Your task to perform on an android device: Search for seafood restaurants on Google Maps Image 0: 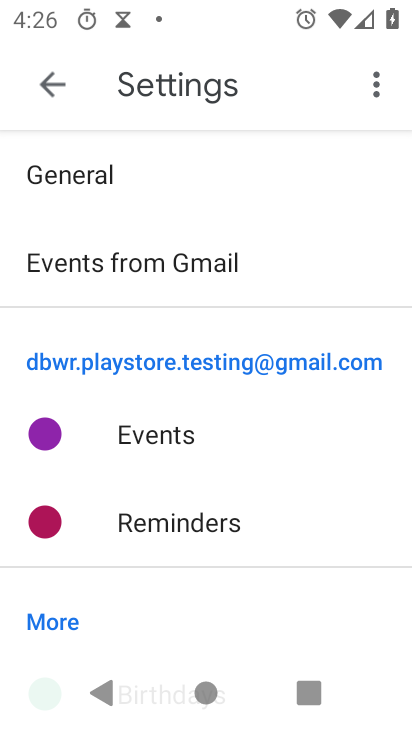
Step 0: press home button
Your task to perform on an android device: Search for seafood restaurants on Google Maps Image 1: 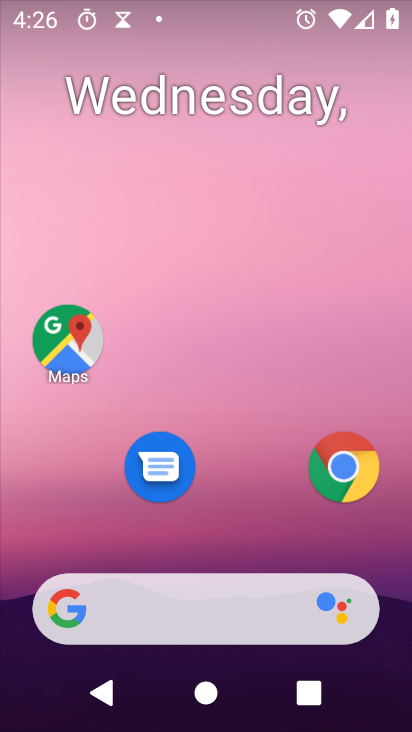
Step 1: click (84, 356)
Your task to perform on an android device: Search for seafood restaurants on Google Maps Image 2: 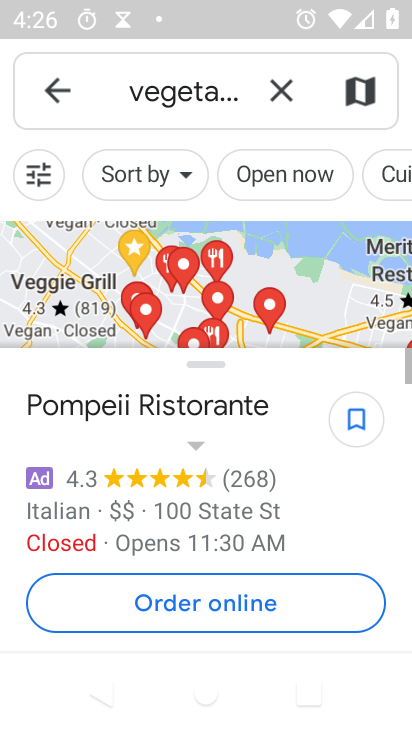
Step 2: click (286, 101)
Your task to perform on an android device: Search for seafood restaurants on Google Maps Image 3: 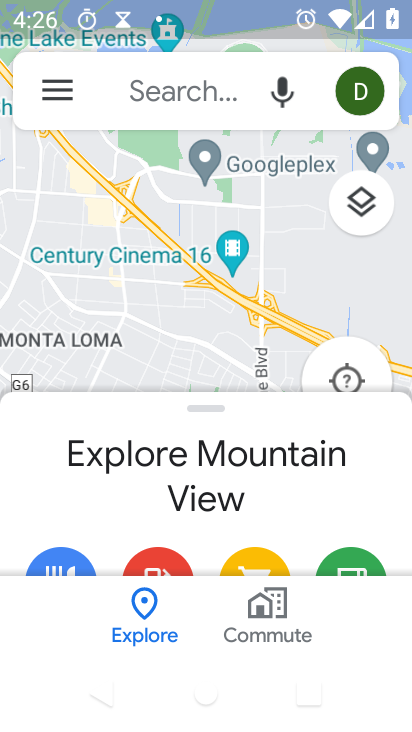
Step 3: click (193, 87)
Your task to perform on an android device: Search for seafood restaurants on Google Maps Image 4: 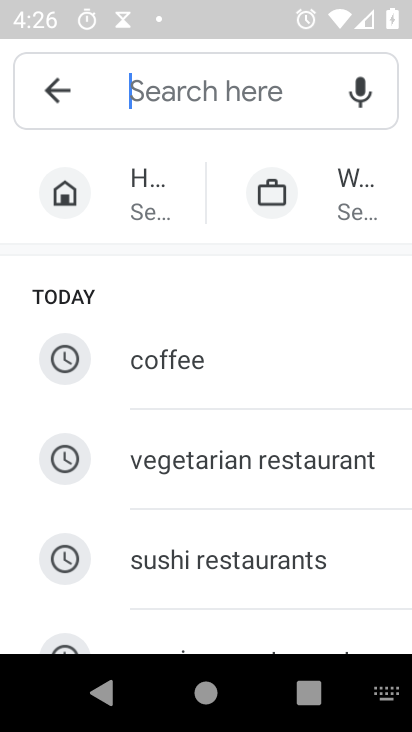
Step 4: type "seafood restaurants"
Your task to perform on an android device: Search for seafood restaurants on Google Maps Image 5: 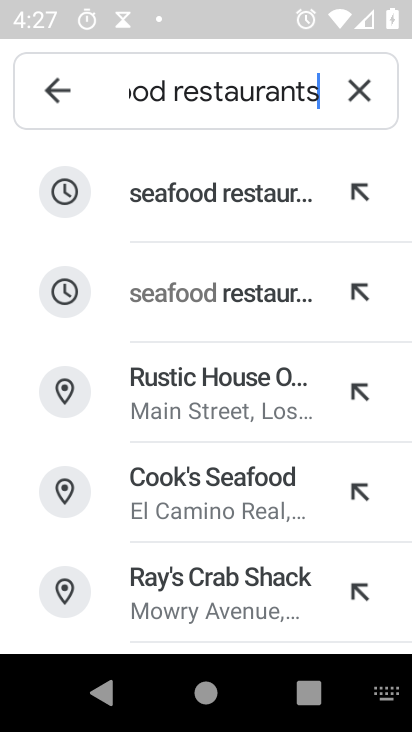
Step 5: click (233, 184)
Your task to perform on an android device: Search for seafood restaurants on Google Maps Image 6: 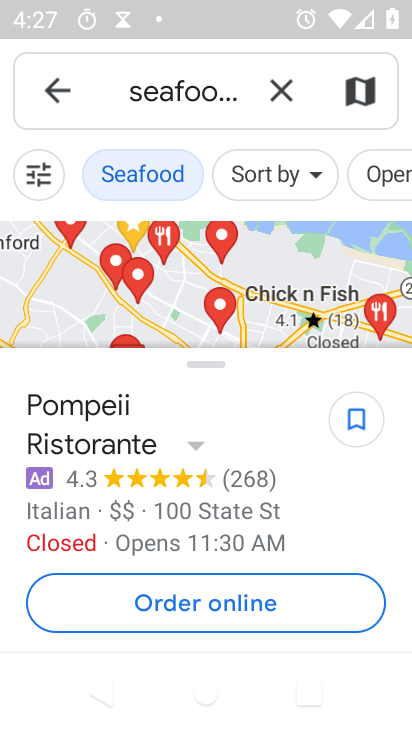
Step 6: task complete